Your task to perform on an android device: Search for "macbook pro 15 inch" on amazon.com, select the first entry, and add it to the cart. Image 0: 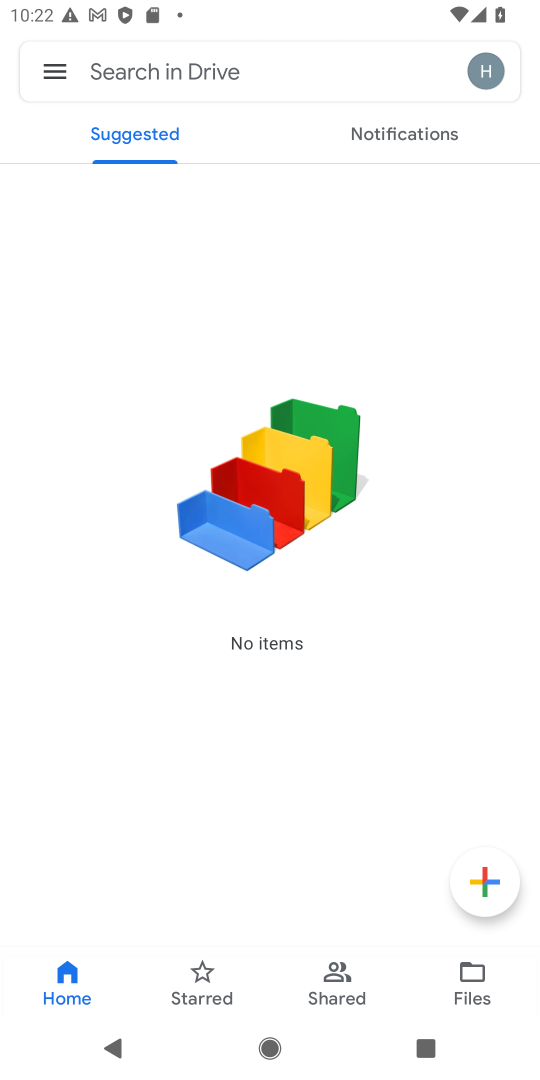
Step 0: press home button
Your task to perform on an android device: Search for "macbook pro 15 inch" on amazon.com, select the first entry, and add it to the cart. Image 1: 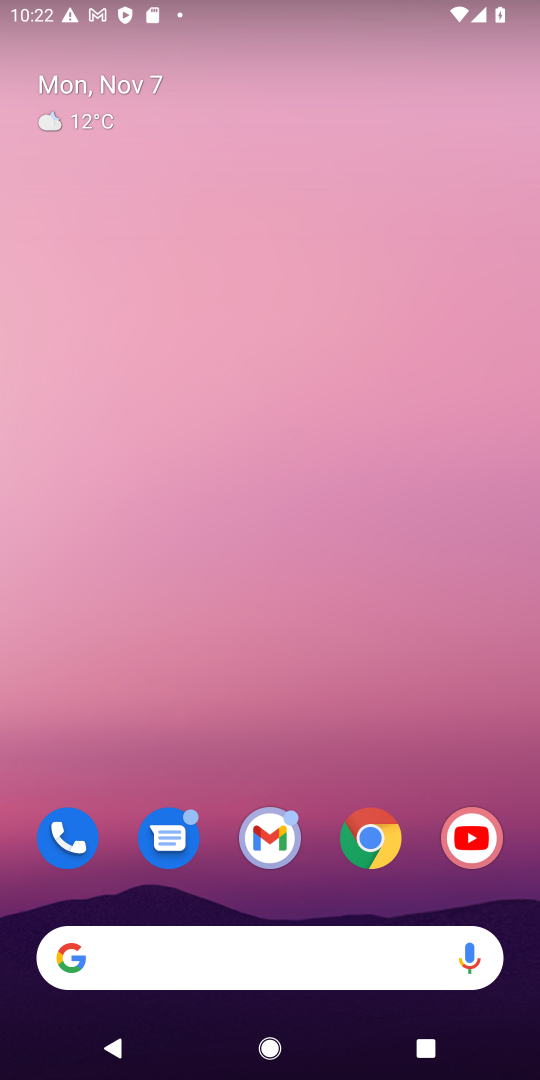
Step 1: click (360, 836)
Your task to perform on an android device: Search for "macbook pro 15 inch" on amazon.com, select the first entry, and add it to the cart. Image 2: 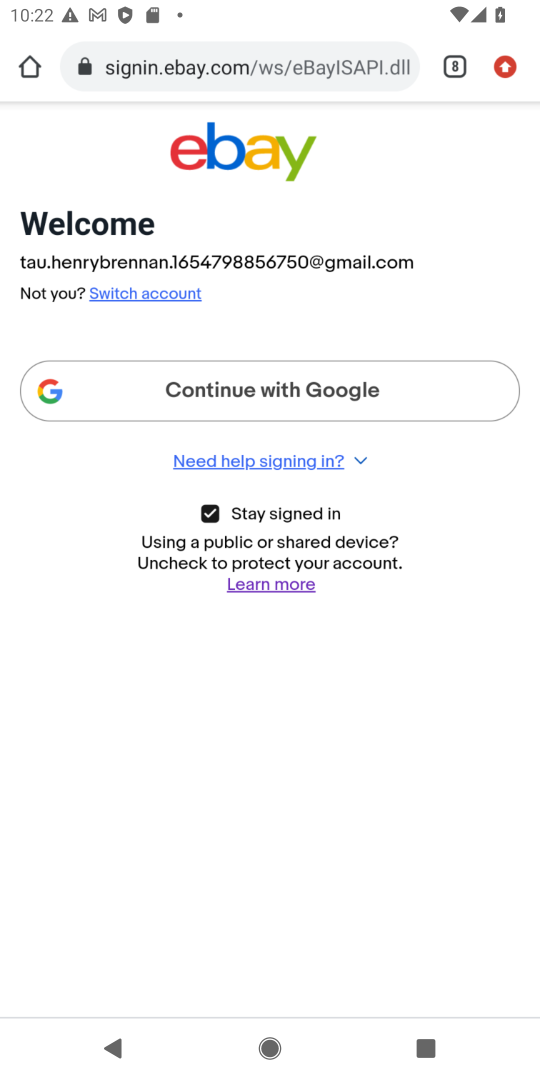
Step 2: click (360, 836)
Your task to perform on an android device: Search for "macbook pro 15 inch" on amazon.com, select the first entry, and add it to the cart. Image 3: 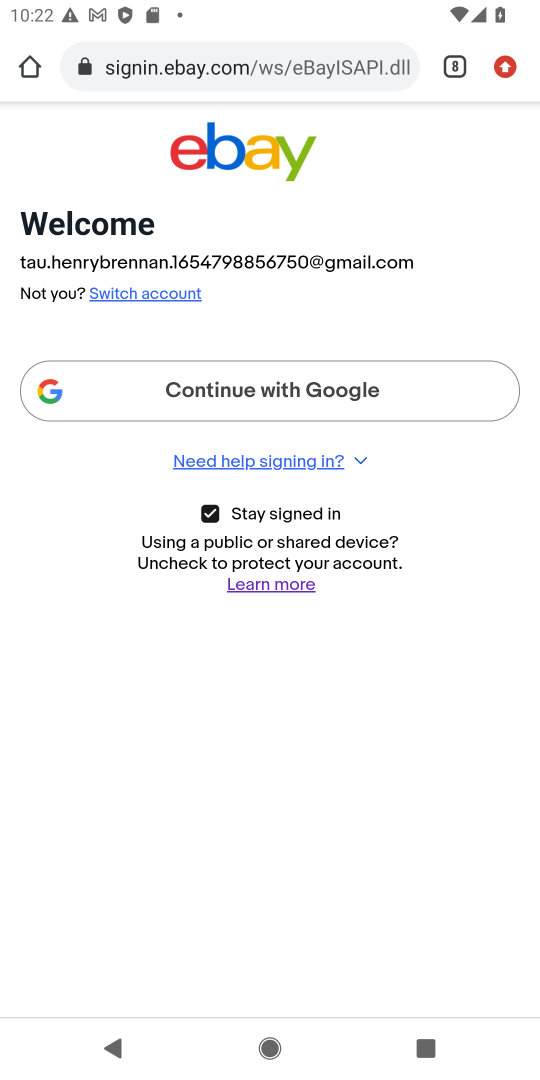
Step 3: click (452, 60)
Your task to perform on an android device: Search for "macbook pro 15 inch" on amazon.com, select the first entry, and add it to the cart. Image 4: 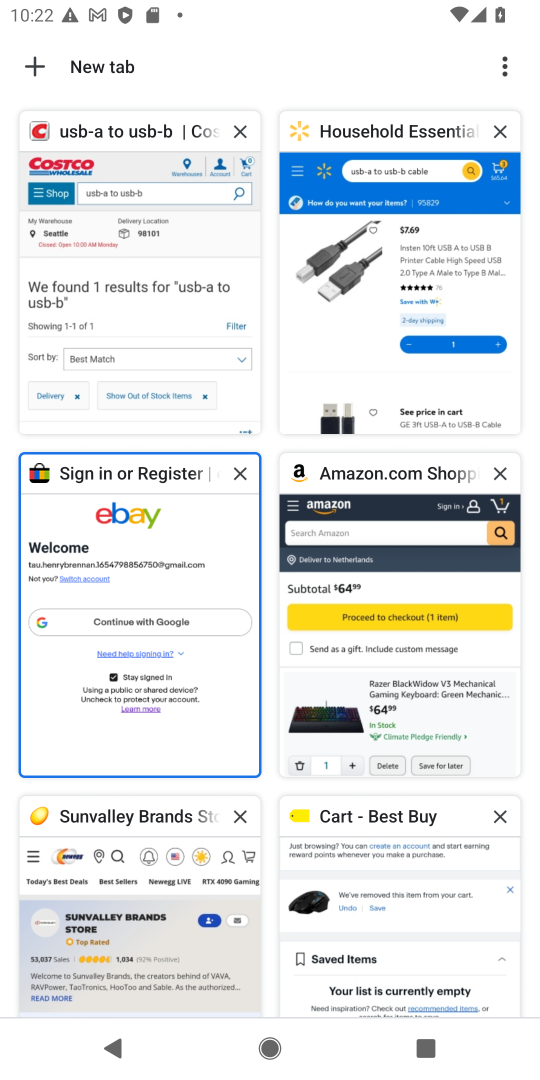
Step 4: click (357, 578)
Your task to perform on an android device: Search for "macbook pro 15 inch" on amazon.com, select the first entry, and add it to the cart. Image 5: 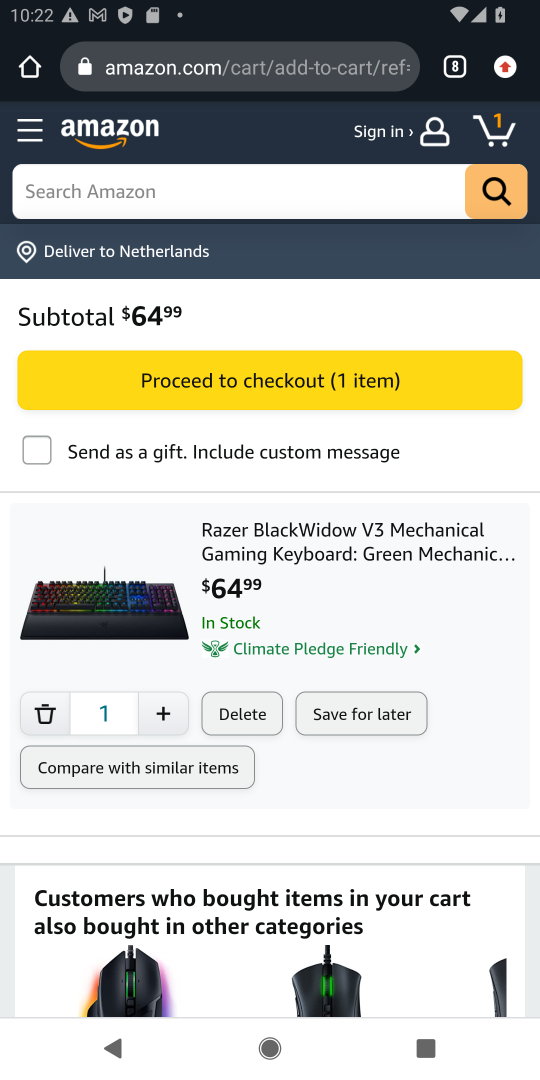
Step 5: click (357, 578)
Your task to perform on an android device: Search for "macbook pro 15 inch" on amazon.com, select the first entry, and add it to the cart. Image 6: 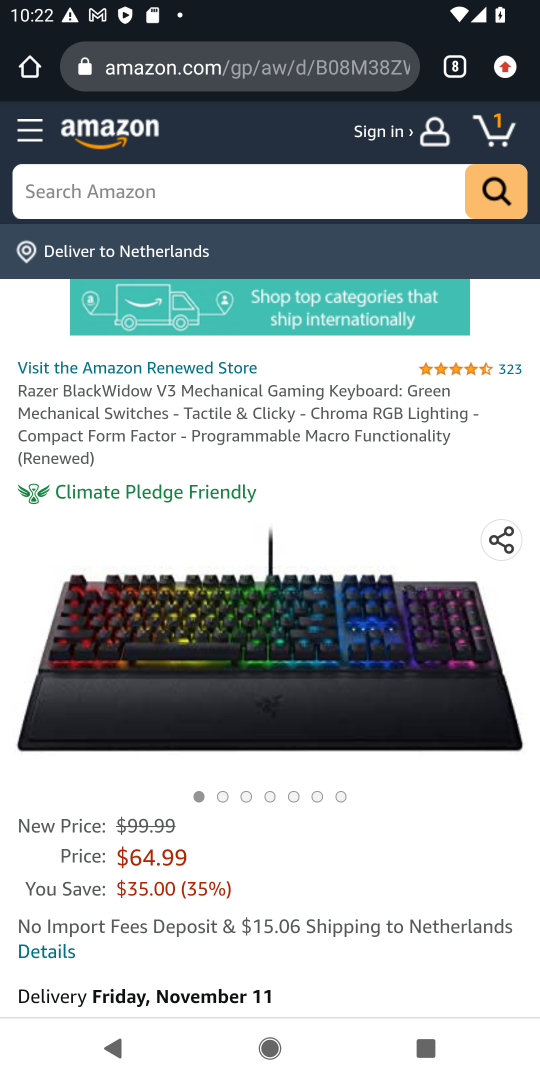
Step 6: click (251, 207)
Your task to perform on an android device: Search for "macbook pro 15 inch" on amazon.com, select the first entry, and add it to the cart. Image 7: 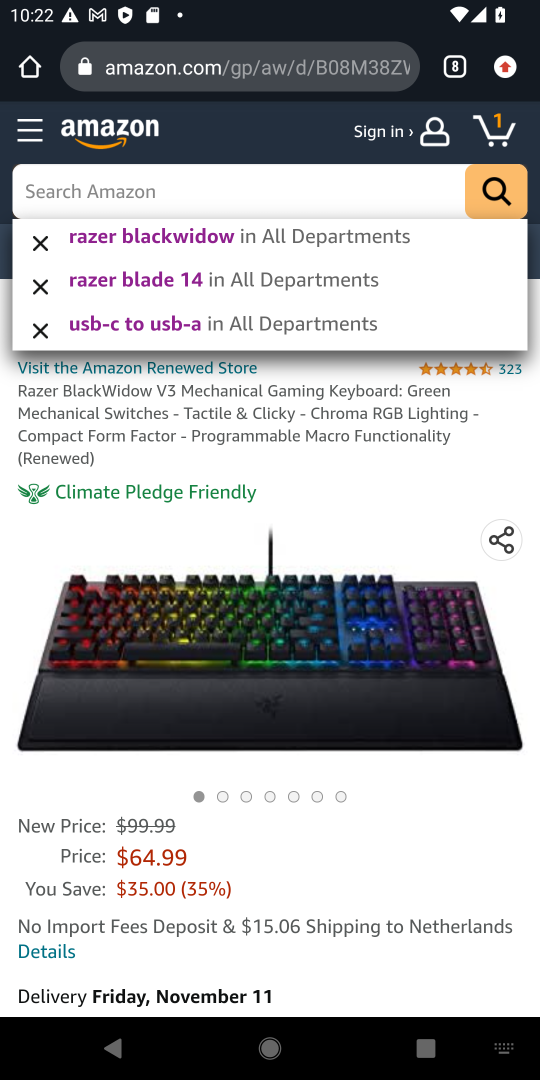
Step 7: type "macbook pro 15 inch"
Your task to perform on an android device: Search for "macbook pro 15 inch" on amazon.com, select the first entry, and add it to the cart. Image 8: 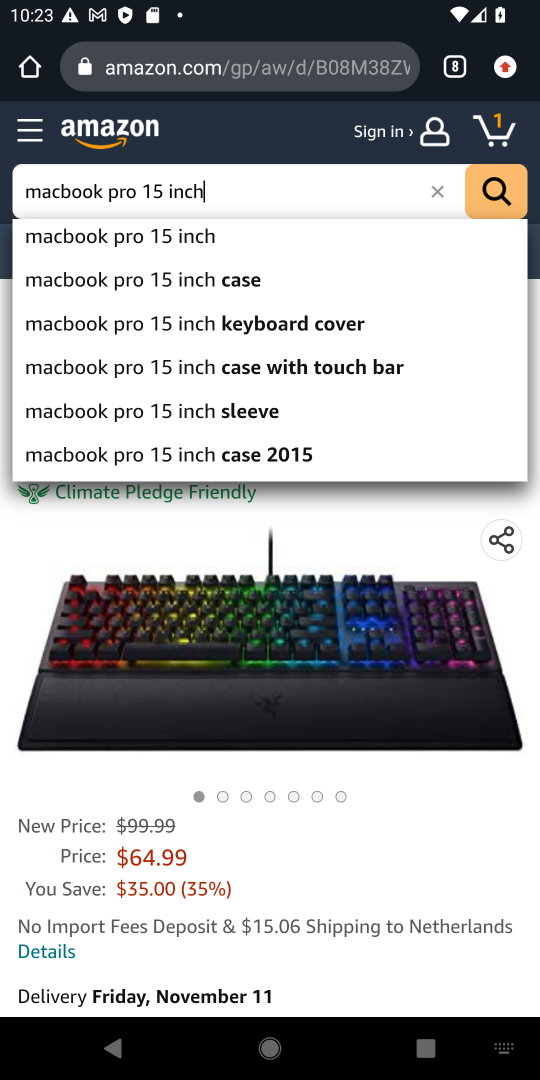
Step 8: click (157, 240)
Your task to perform on an android device: Search for "macbook pro 15 inch" on amazon.com, select the first entry, and add it to the cart. Image 9: 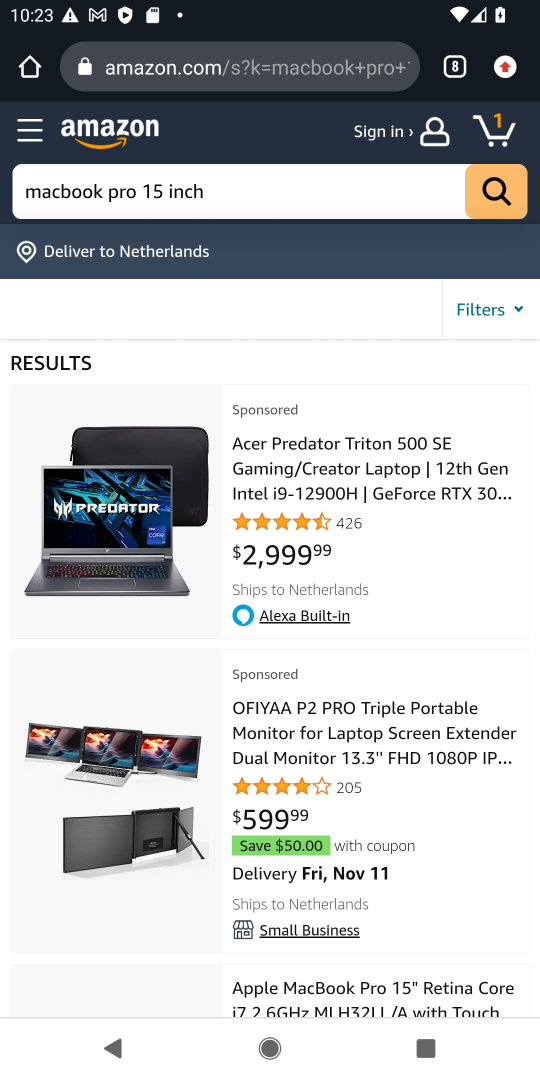
Step 9: click (344, 996)
Your task to perform on an android device: Search for "macbook pro 15 inch" on amazon.com, select the first entry, and add it to the cart. Image 10: 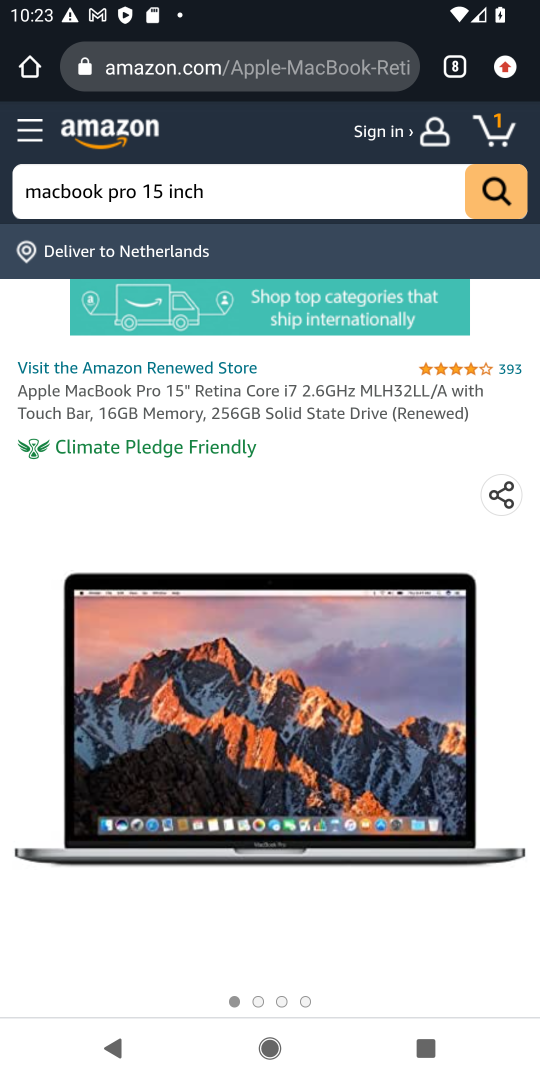
Step 10: drag from (321, 960) to (281, 278)
Your task to perform on an android device: Search for "macbook pro 15 inch" on amazon.com, select the first entry, and add it to the cart. Image 11: 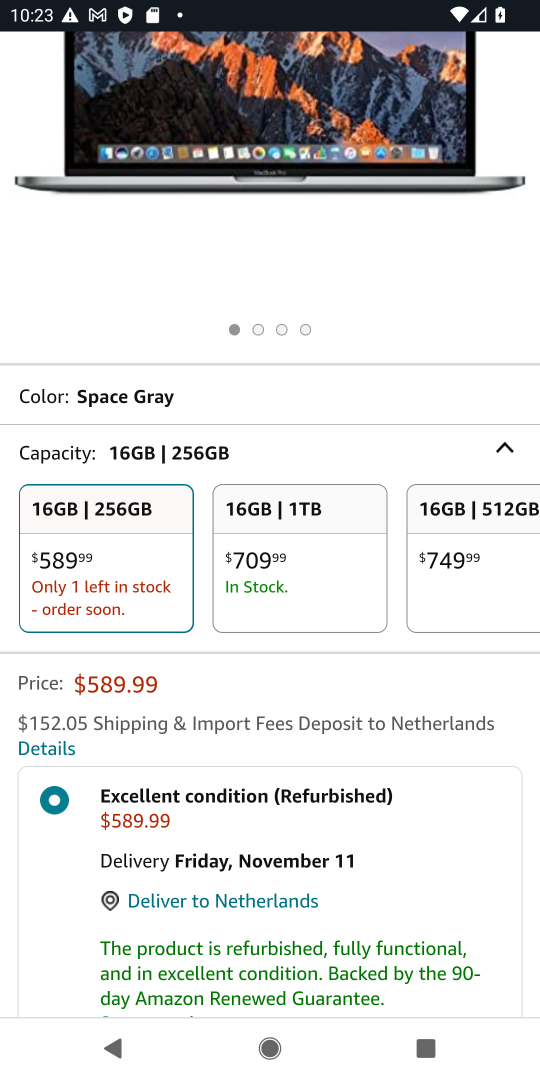
Step 11: drag from (301, 855) to (468, 8)
Your task to perform on an android device: Search for "macbook pro 15 inch" on amazon.com, select the first entry, and add it to the cart. Image 12: 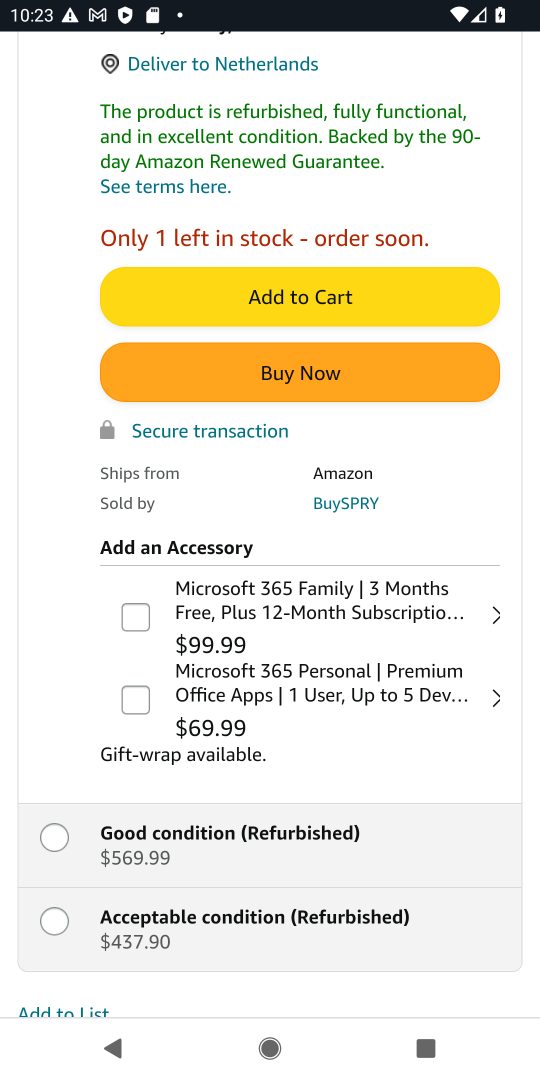
Step 12: click (280, 300)
Your task to perform on an android device: Search for "macbook pro 15 inch" on amazon.com, select the first entry, and add it to the cart. Image 13: 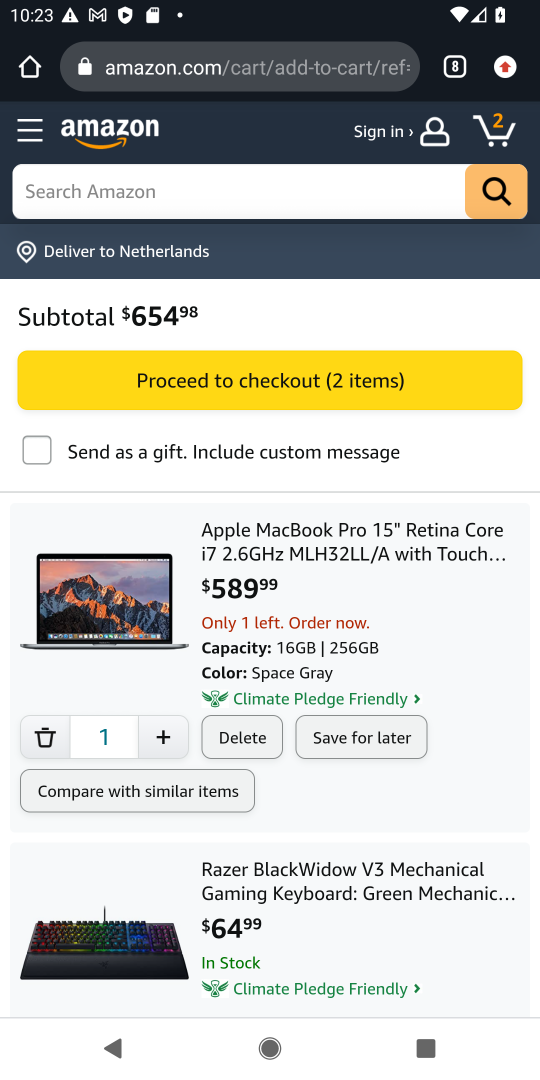
Step 13: task complete